Your task to perform on an android device: What's the weather today? Image 0: 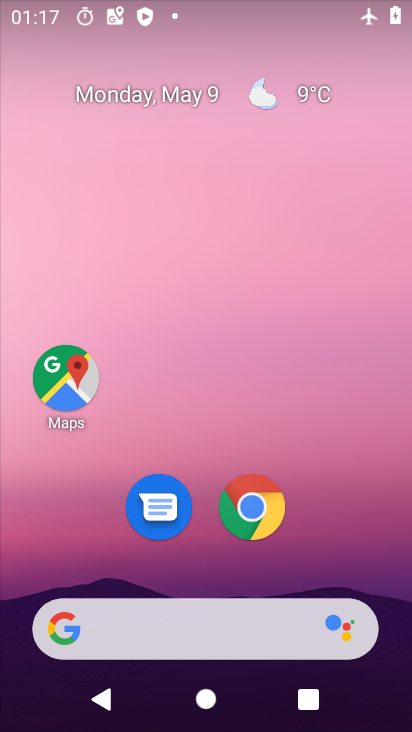
Step 0: drag from (222, 723) to (224, 259)
Your task to perform on an android device: What's the weather today? Image 1: 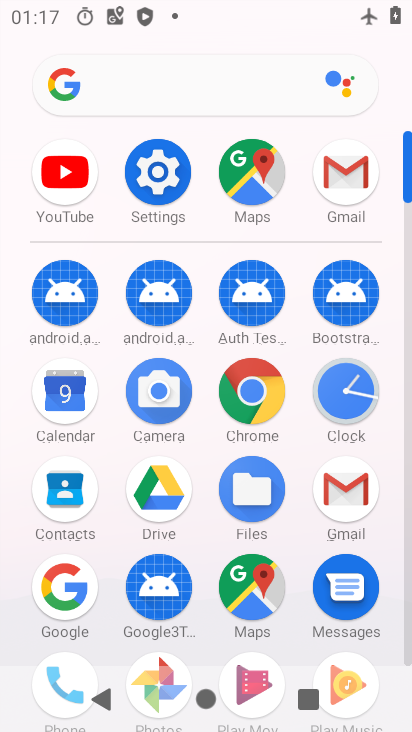
Step 1: click (82, 591)
Your task to perform on an android device: What's the weather today? Image 2: 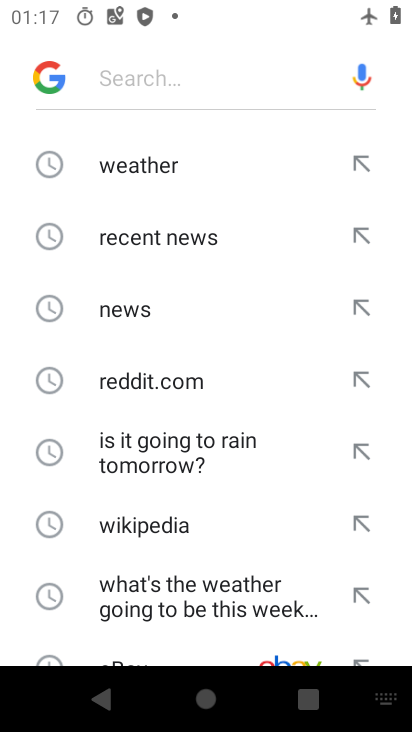
Step 2: click (126, 170)
Your task to perform on an android device: What's the weather today? Image 3: 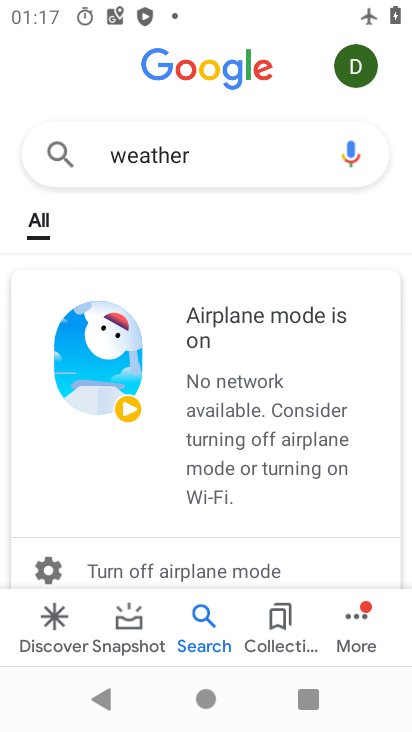
Step 3: task complete